Your task to perform on an android device: turn smart compose on in the gmail app Image 0: 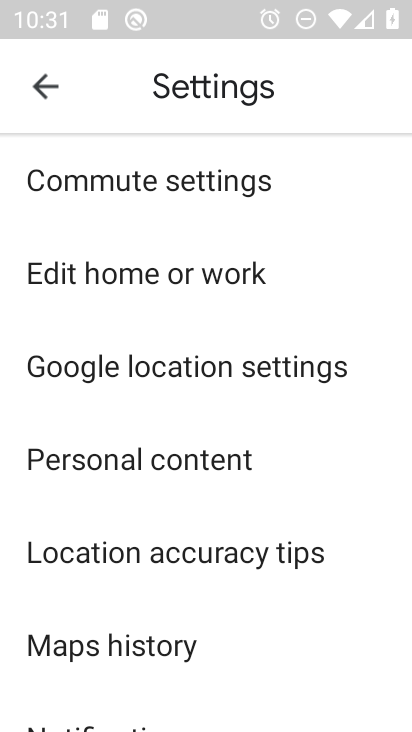
Step 0: press home button
Your task to perform on an android device: turn smart compose on in the gmail app Image 1: 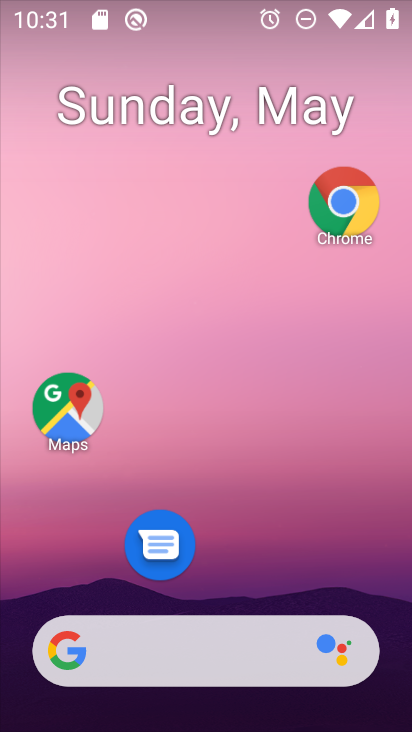
Step 1: drag from (288, 551) to (343, 15)
Your task to perform on an android device: turn smart compose on in the gmail app Image 2: 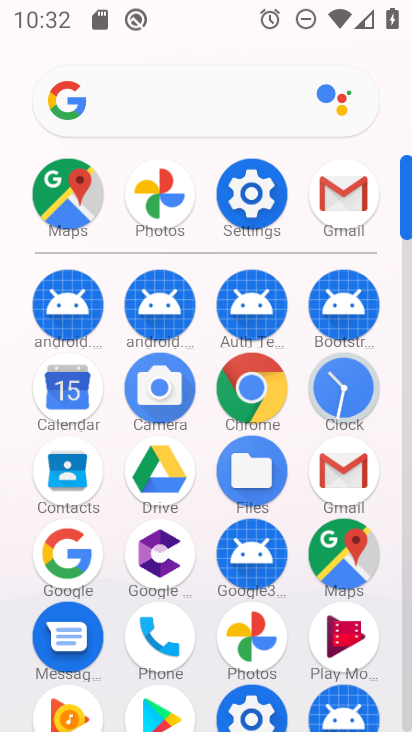
Step 2: click (338, 465)
Your task to perform on an android device: turn smart compose on in the gmail app Image 3: 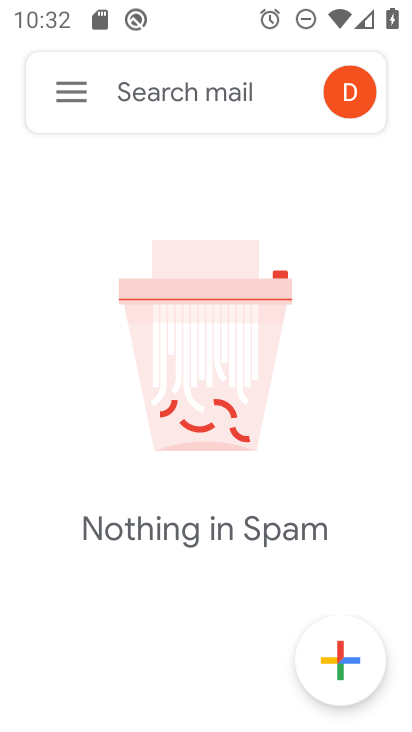
Step 3: click (83, 86)
Your task to perform on an android device: turn smart compose on in the gmail app Image 4: 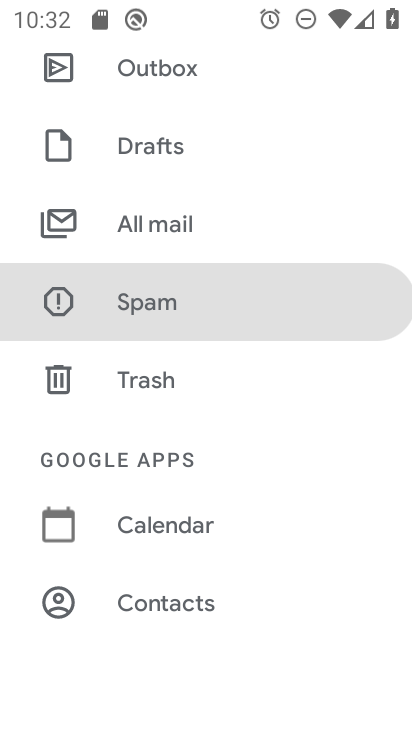
Step 4: drag from (100, 498) to (135, 323)
Your task to perform on an android device: turn smart compose on in the gmail app Image 5: 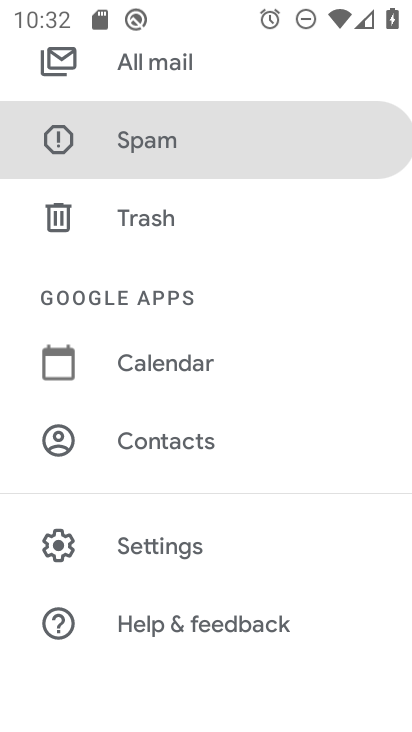
Step 5: click (163, 530)
Your task to perform on an android device: turn smart compose on in the gmail app Image 6: 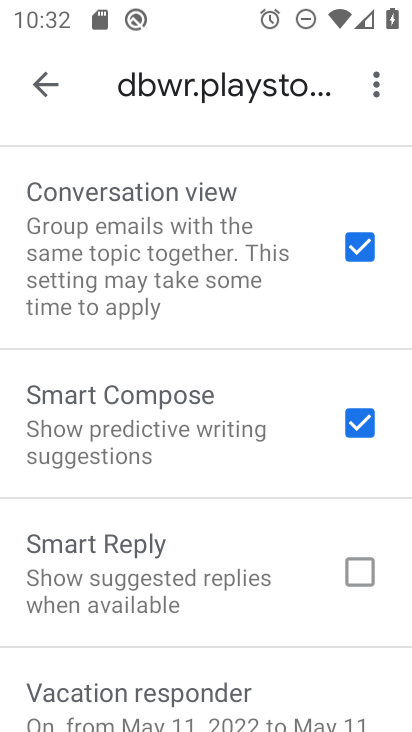
Step 6: task complete